Your task to perform on an android device: turn off translation in the chrome app Image 0: 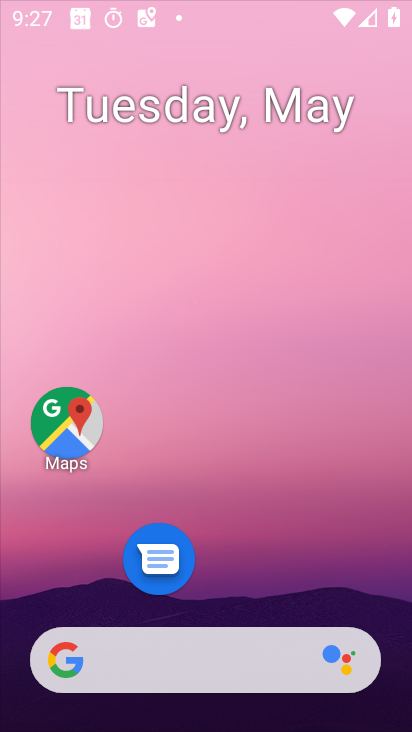
Step 0: click (374, 513)
Your task to perform on an android device: turn off translation in the chrome app Image 1: 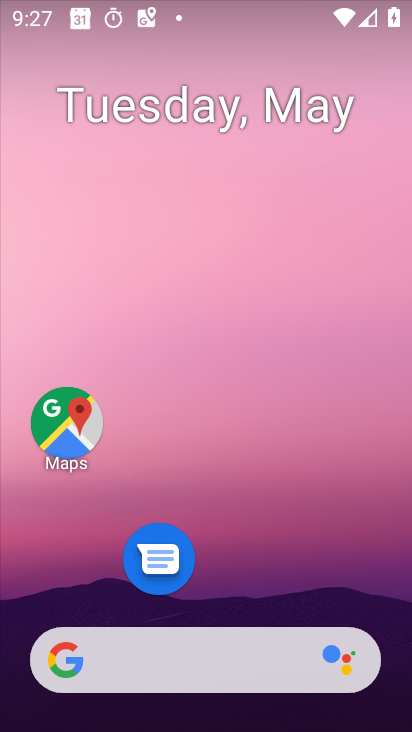
Step 1: drag from (383, 594) to (248, 0)
Your task to perform on an android device: turn off translation in the chrome app Image 2: 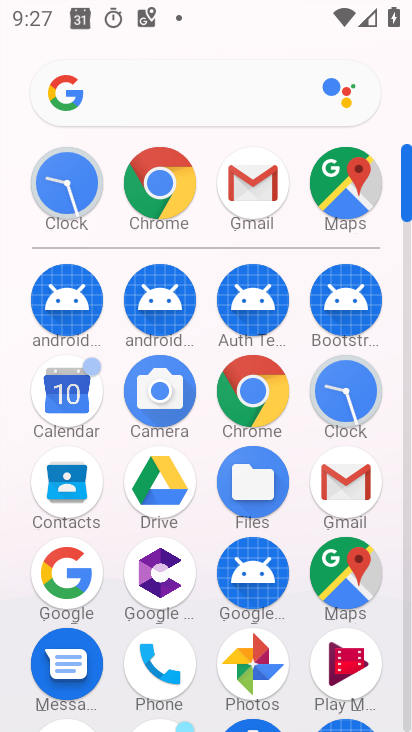
Step 2: click (249, 401)
Your task to perform on an android device: turn off translation in the chrome app Image 3: 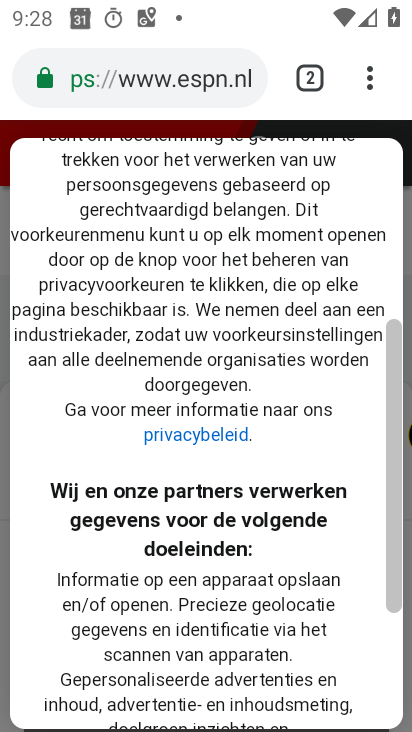
Step 3: drag from (183, 217) to (227, 474)
Your task to perform on an android device: turn off translation in the chrome app Image 4: 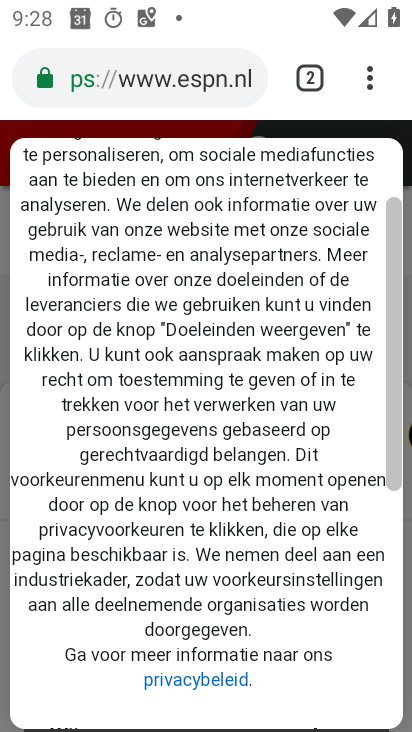
Step 4: drag from (177, 196) to (326, 408)
Your task to perform on an android device: turn off translation in the chrome app Image 5: 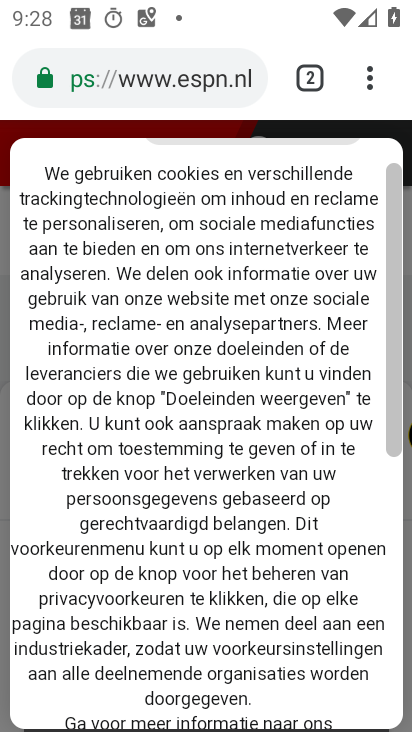
Step 5: click (296, 224)
Your task to perform on an android device: turn off translation in the chrome app Image 6: 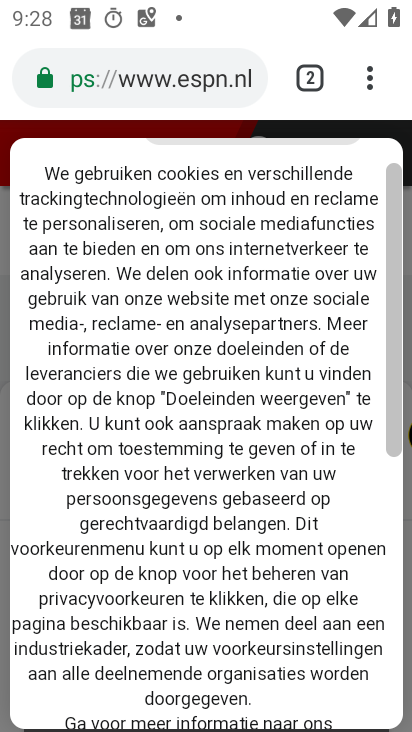
Step 6: press back button
Your task to perform on an android device: turn off translation in the chrome app Image 7: 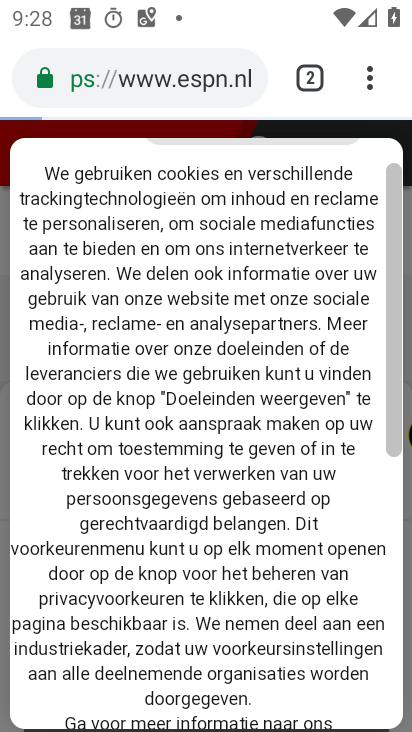
Step 7: press back button
Your task to perform on an android device: turn off translation in the chrome app Image 8: 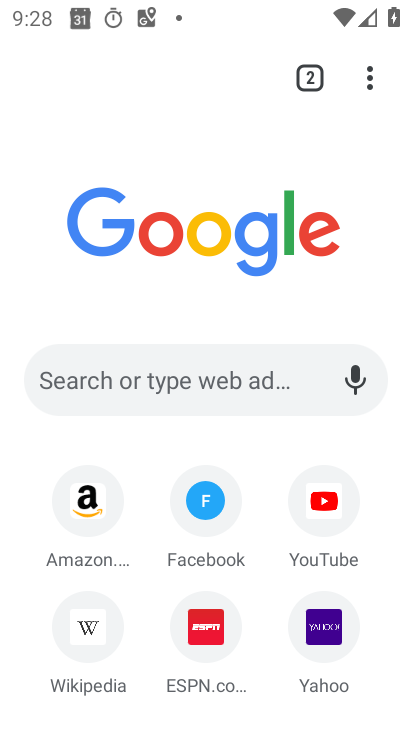
Step 8: drag from (362, 72) to (77, 610)
Your task to perform on an android device: turn off translation in the chrome app Image 9: 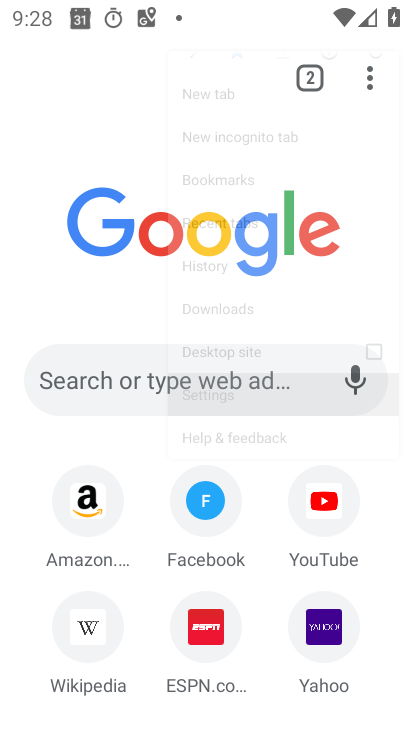
Step 9: click (68, 600)
Your task to perform on an android device: turn off translation in the chrome app Image 10: 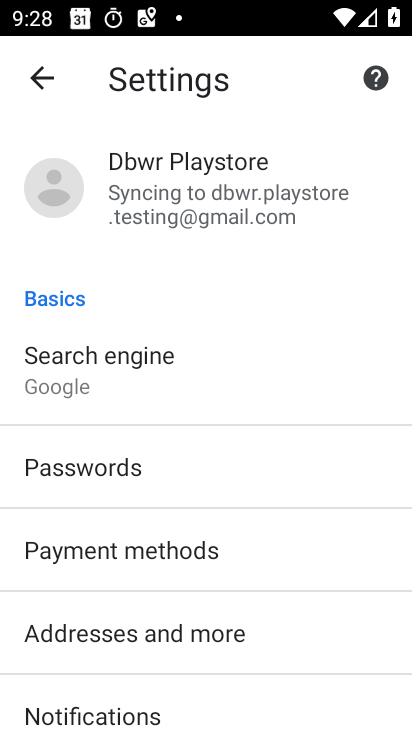
Step 10: drag from (140, 560) to (105, 117)
Your task to perform on an android device: turn off translation in the chrome app Image 11: 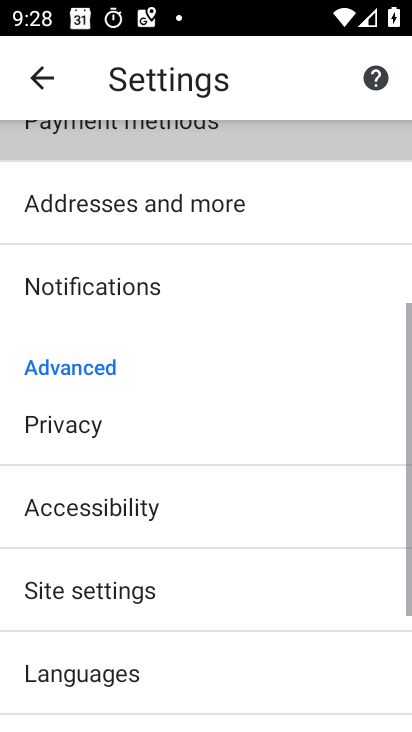
Step 11: drag from (205, 598) to (190, 167)
Your task to perform on an android device: turn off translation in the chrome app Image 12: 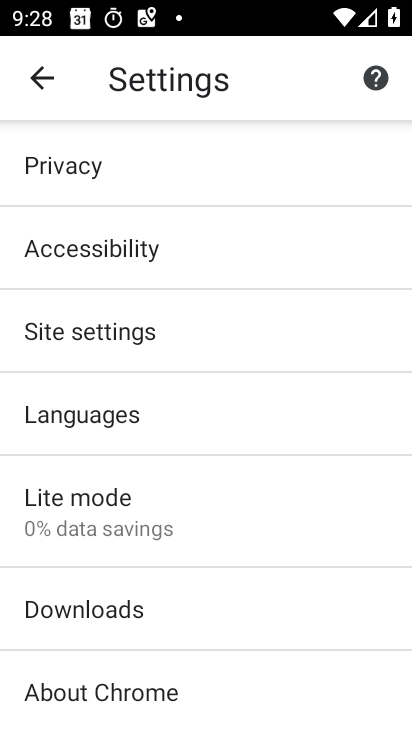
Step 12: click (60, 411)
Your task to perform on an android device: turn off translation in the chrome app Image 13: 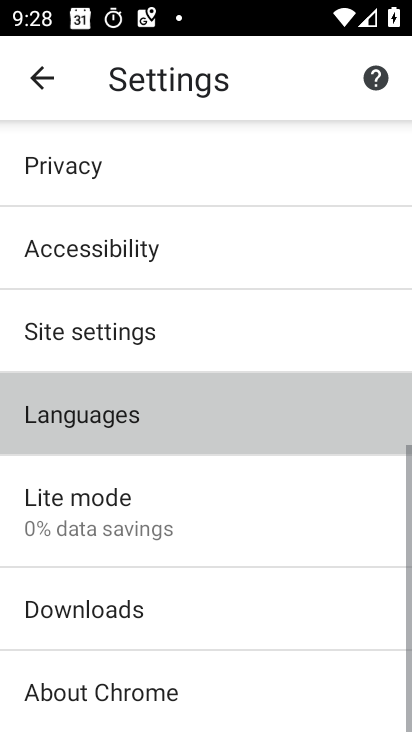
Step 13: click (60, 426)
Your task to perform on an android device: turn off translation in the chrome app Image 14: 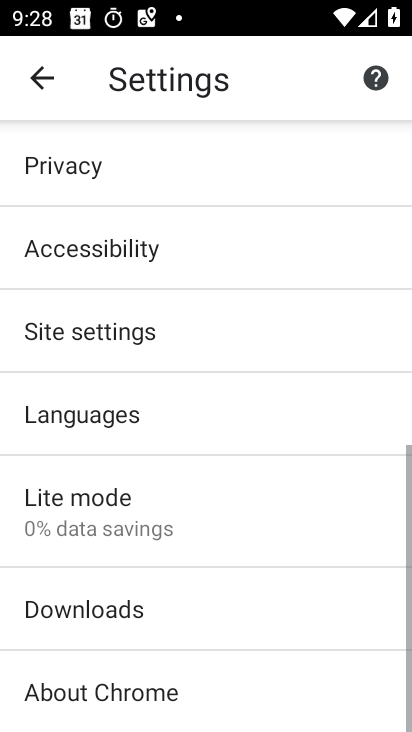
Step 14: click (63, 418)
Your task to perform on an android device: turn off translation in the chrome app Image 15: 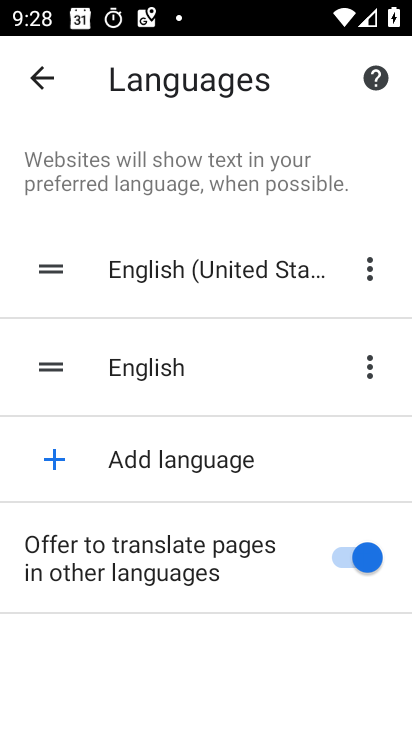
Step 15: click (351, 544)
Your task to perform on an android device: turn off translation in the chrome app Image 16: 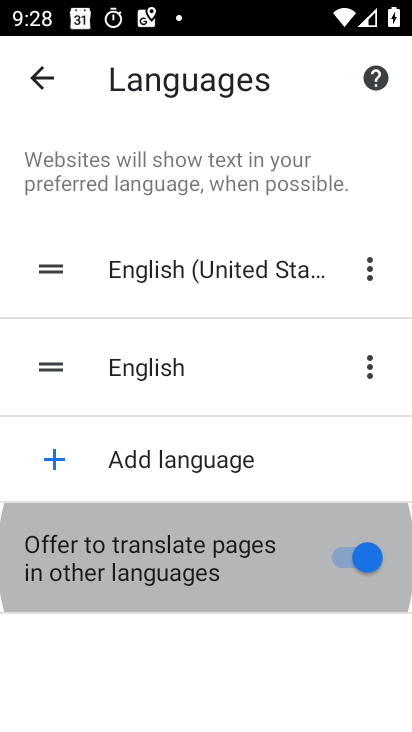
Step 16: click (350, 543)
Your task to perform on an android device: turn off translation in the chrome app Image 17: 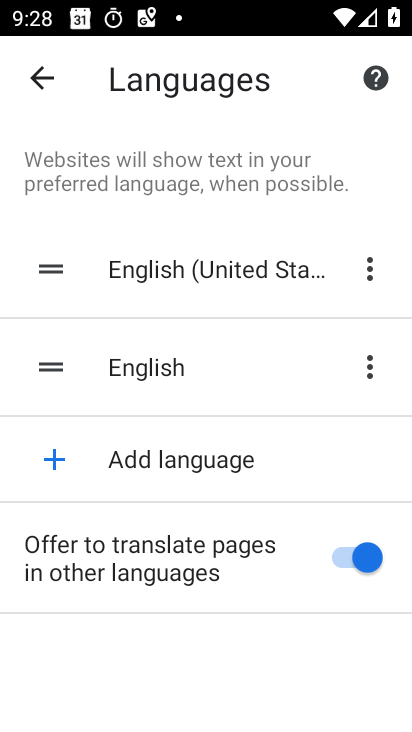
Step 17: click (372, 557)
Your task to perform on an android device: turn off translation in the chrome app Image 18: 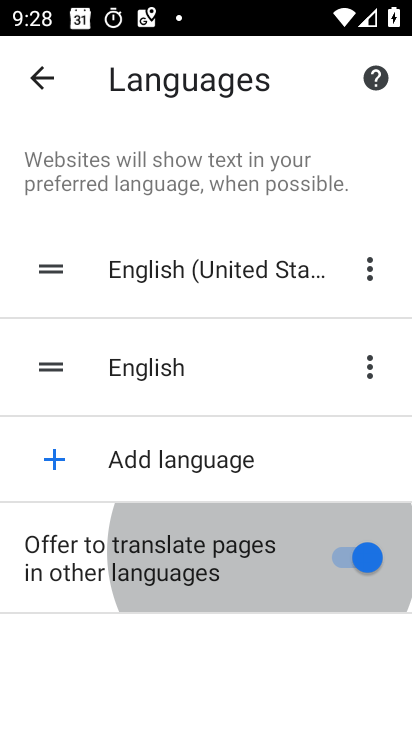
Step 18: click (372, 557)
Your task to perform on an android device: turn off translation in the chrome app Image 19: 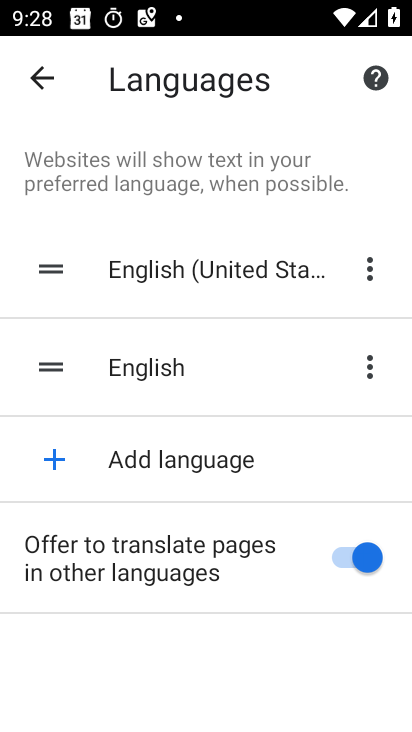
Step 19: click (358, 561)
Your task to perform on an android device: turn off translation in the chrome app Image 20: 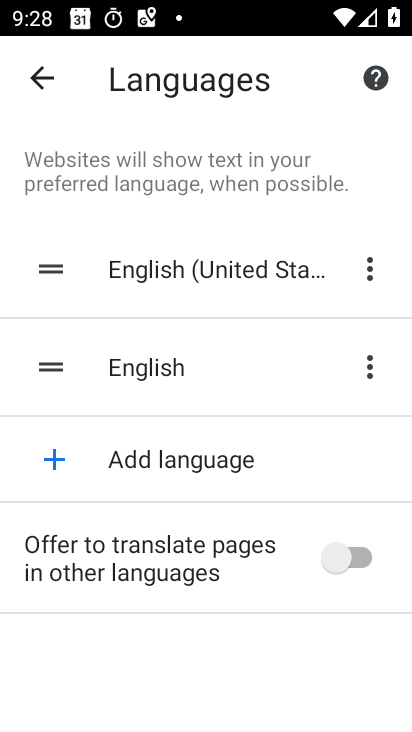
Step 20: click (359, 560)
Your task to perform on an android device: turn off translation in the chrome app Image 21: 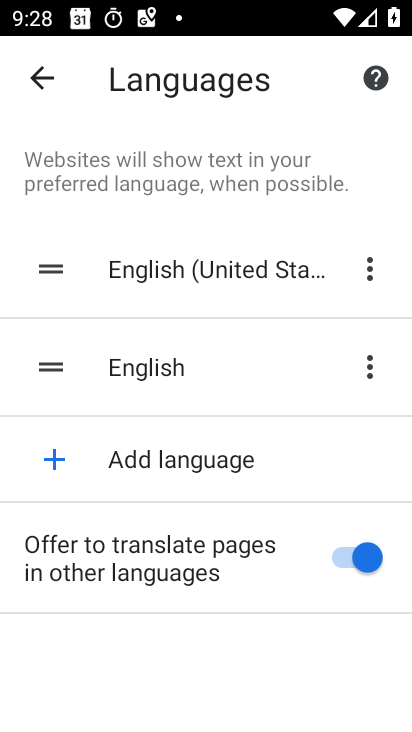
Step 21: click (357, 555)
Your task to perform on an android device: turn off translation in the chrome app Image 22: 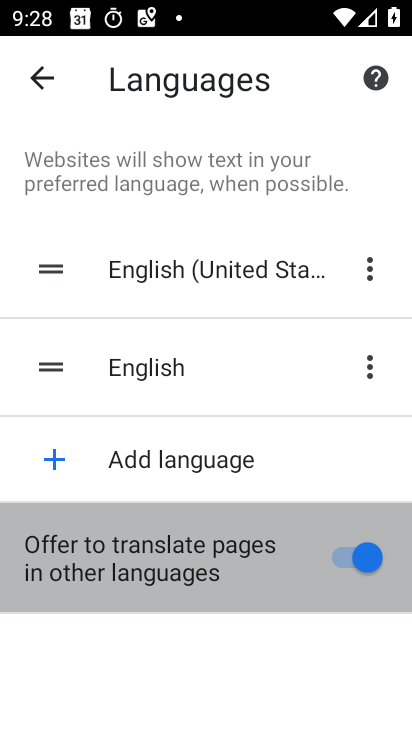
Step 22: click (376, 548)
Your task to perform on an android device: turn off translation in the chrome app Image 23: 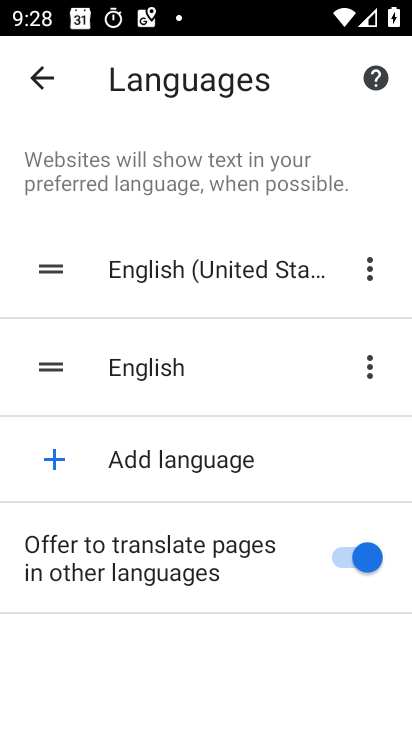
Step 23: task complete